Your task to perform on an android device: find photos in the google photos app Image 0: 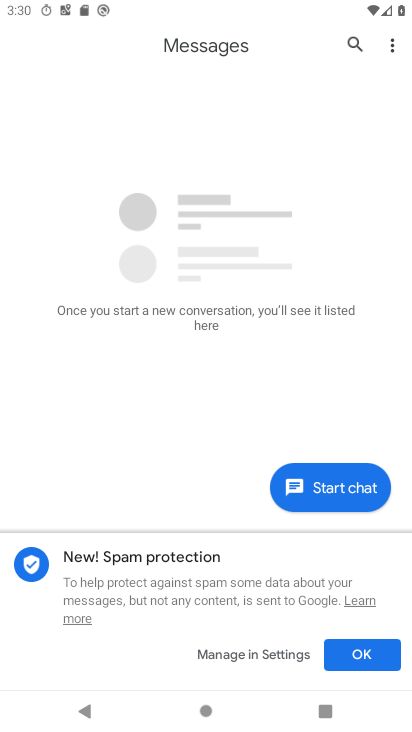
Step 0: press home button
Your task to perform on an android device: find photos in the google photos app Image 1: 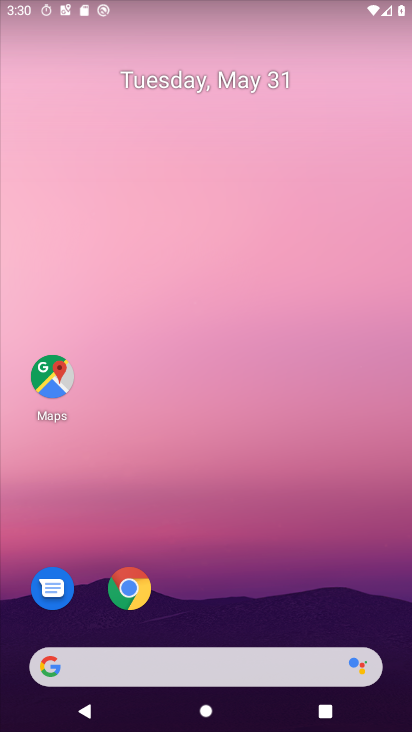
Step 1: drag from (71, 644) to (142, 128)
Your task to perform on an android device: find photos in the google photos app Image 2: 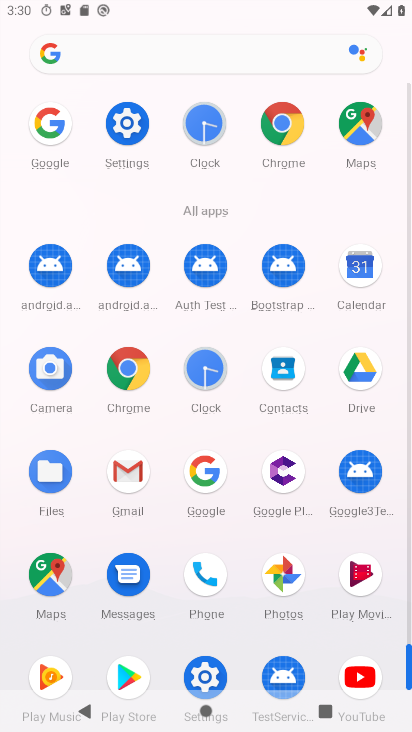
Step 2: click (283, 581)
Your task to perform on an android device: find photos in the google photos app Image 3: 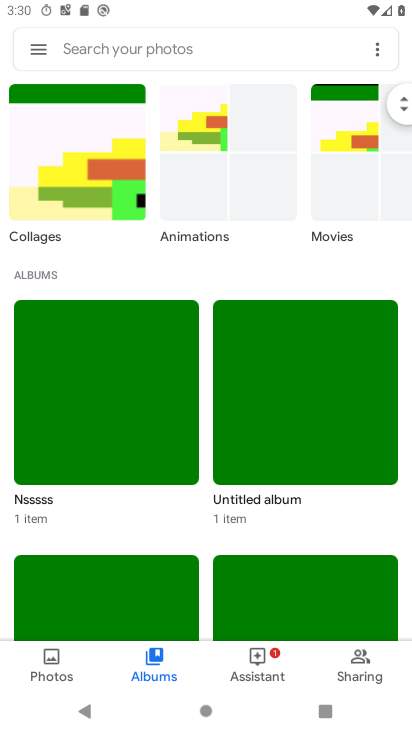
Step 3: click (53, 656)
Your task to perform on an android device: find photos in the google photos app Image 4: 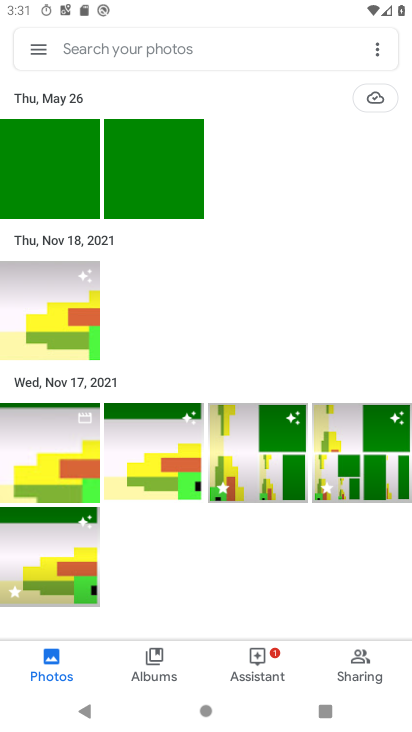
Step 4: task complete